Your task to perform on an android device: check the backup settings in the google photos Image 0: 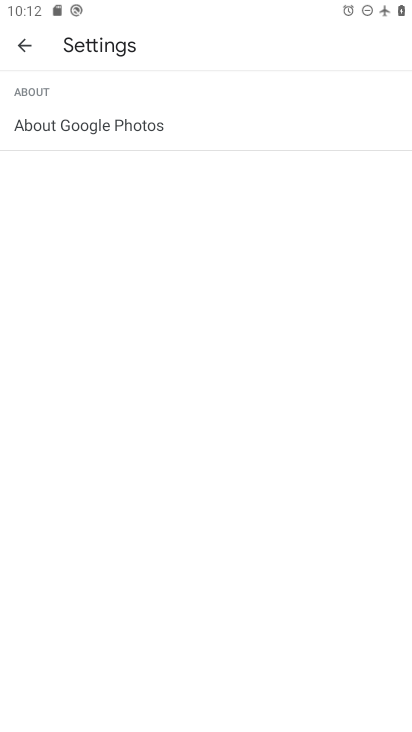
Step 0: drag from (201, 640) to (189, 440)
Your task to perform on an android device: check the backup settings in the google photos Image 1: 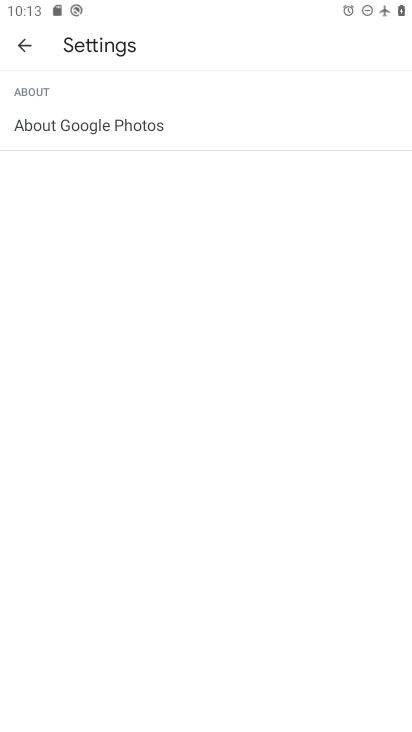
Step 1: press home button
Your task to perform on an android device: check the backup settings in the google photos Image 2: 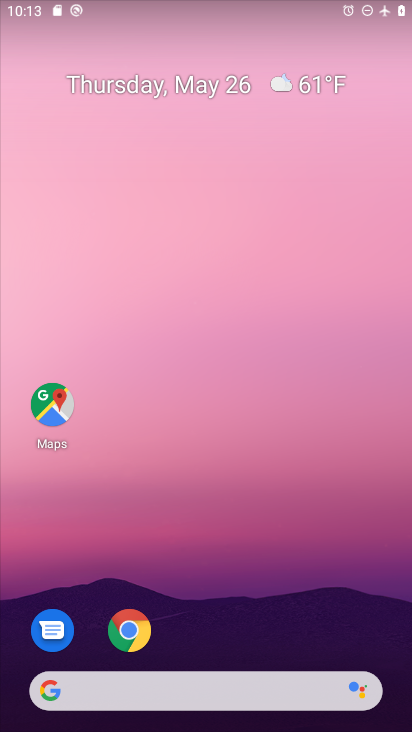
Step 2: drag from (195, 652) to (139, 37)
Your task to perform on an android device: check the backup settings in the google photos Image 3: 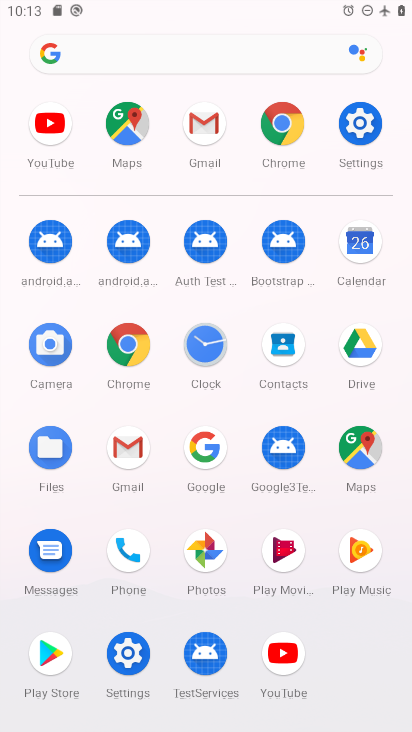
Step 3: click (199, 559)
Your task to perform on an android device: check the backup settings in the google photos Image 4: 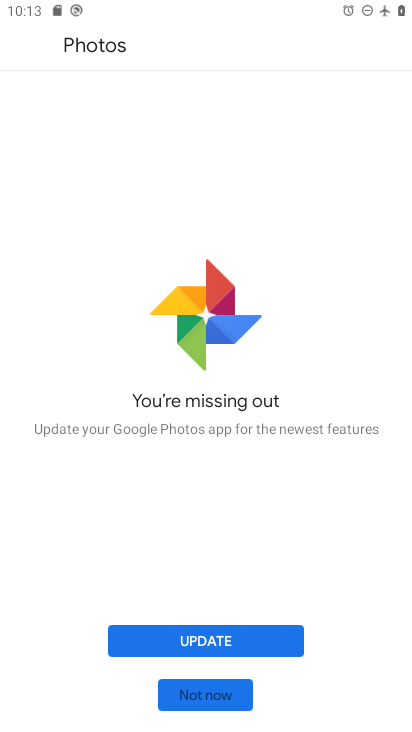
Step 4: click (199, 696)
Your task to perform on an android device: check the backup settings in the google photos Image 5: 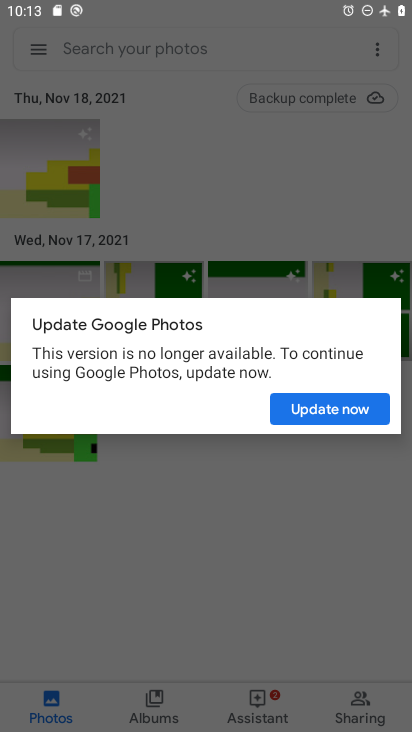
Step 5: click (287, 489)
Your task to perform on an android device: check the backup settings in the google photos Image 6: 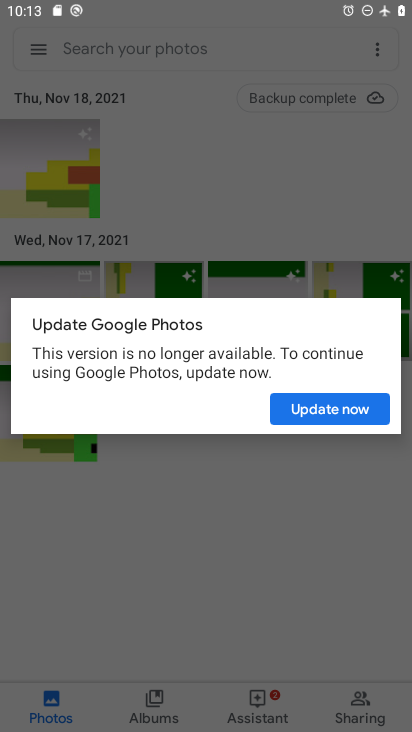
Step 6: click (325, 414)
Your task to perform on an android device: check the backup settings in the google photos Image 7: 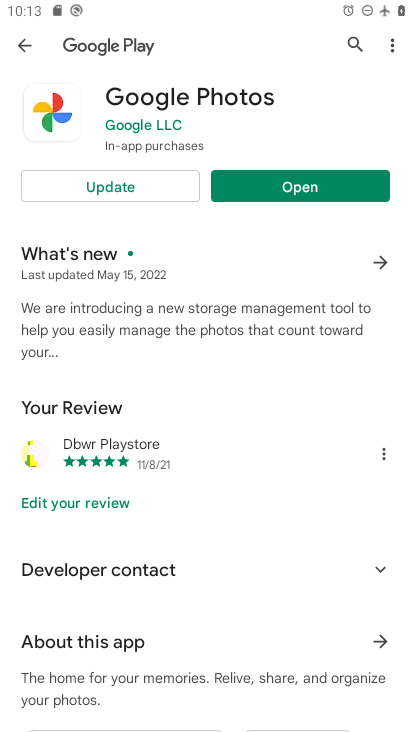
Step 7: click (28, 57)
Your task to perform on an android device: check the backup settings in the google photos Image 8: 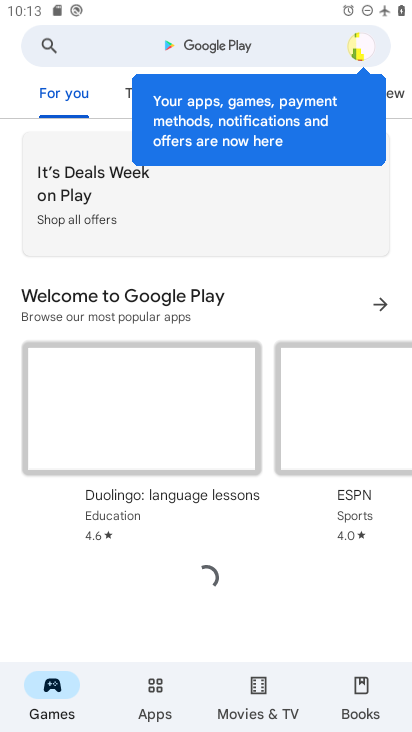
Step 8: press back button
Your task to perform on an android device: check the backup settings in the google photos Image 9: 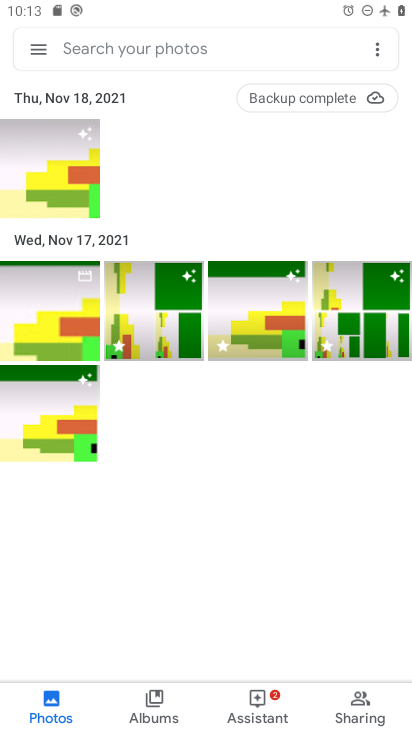
Step 9: click (33, 57)
Your task to perform on an android device: check the backup settings in the google photos Image 10: 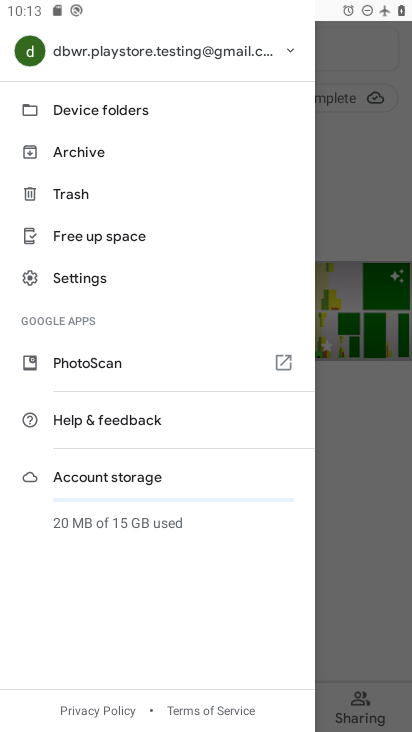
Step 10: click (68, 65)
Your task to perform on an android device: check the backup settings in the google photos Image 11: 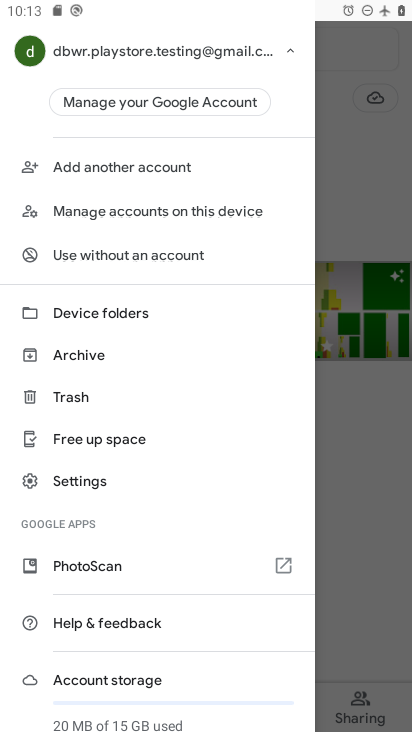
Step 11: click (85, 477)
Your task to perform on an android device: check the backup settings in the google photos Image 12: 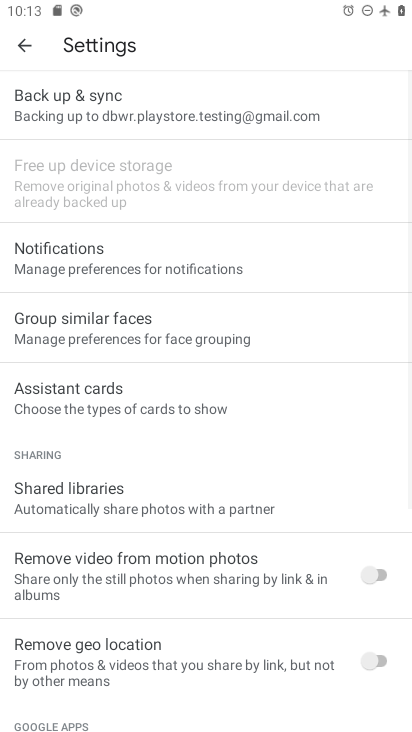
Step 12: click (93, 114)
Your task to perform on an android device: check the backup settings in the google photos Image 13: 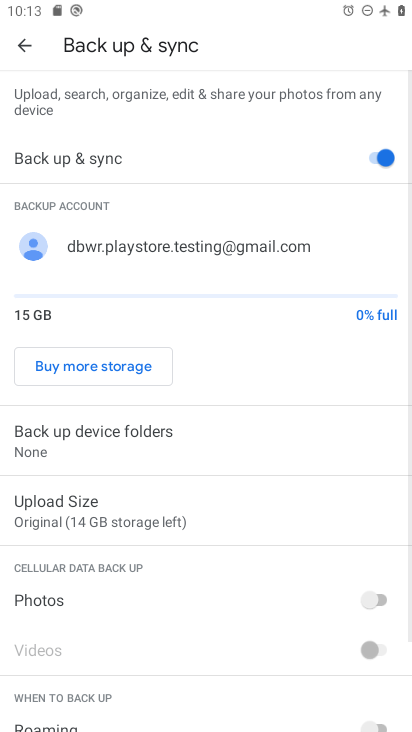
Step 13: task complete